Your task to perform on an android device: toggle show notifications on the lock screen Image 0: 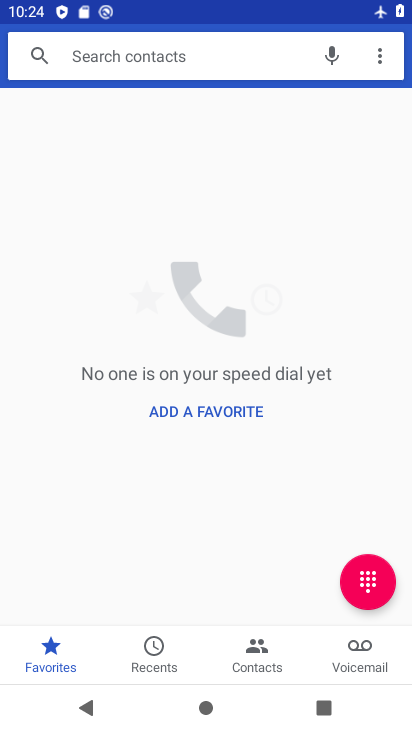
Step 0: press home button
Your task to perform on an android device: toggle show notifications on the lock screen Image 1: 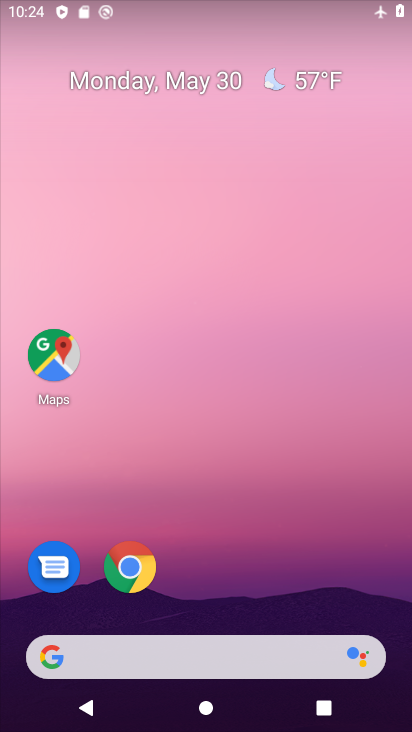
Step 1: drag from (204, 600) to (182, 218)
Your task to perform on an android device: toggle show notifications on the lock screen Image 2: 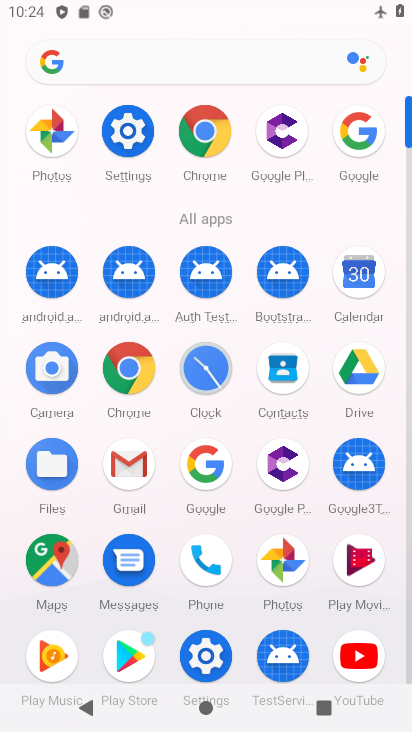
Step 2: click (125, 146)
Your task to perform on an android device: toggle show notifications on the lock screen Image 3: 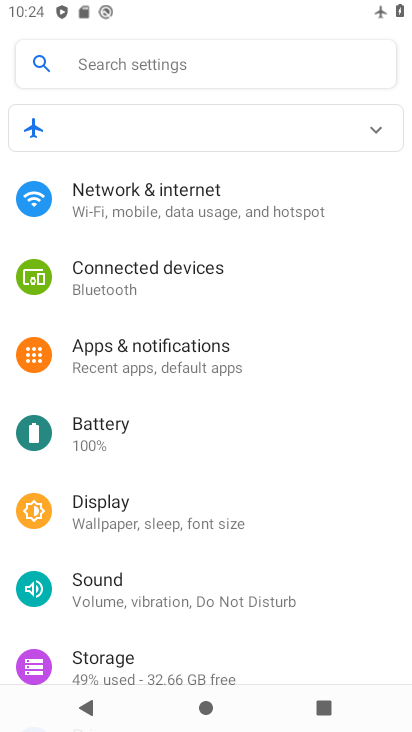
Step 3: click (152, 365)
Your task to perform on an android device: toggle show notifications on the lock screen Image 4: 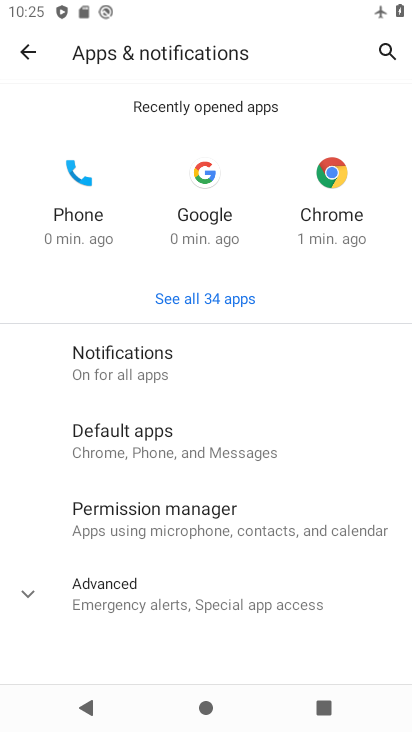
Step 4: drag from (178, 549) to (200, 434)
Your task to perform on an android device: toggle show notifications on the lock screen Image 5: 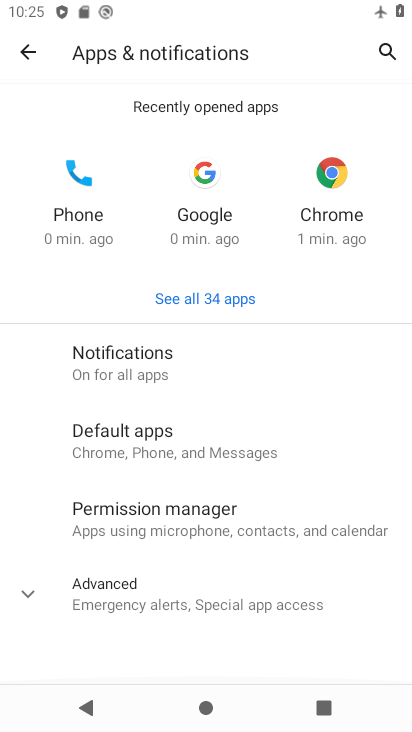
Step 5: click (168, 350)
Your task to perform on an android device: toggle show notifications on the lock screen Image 6: 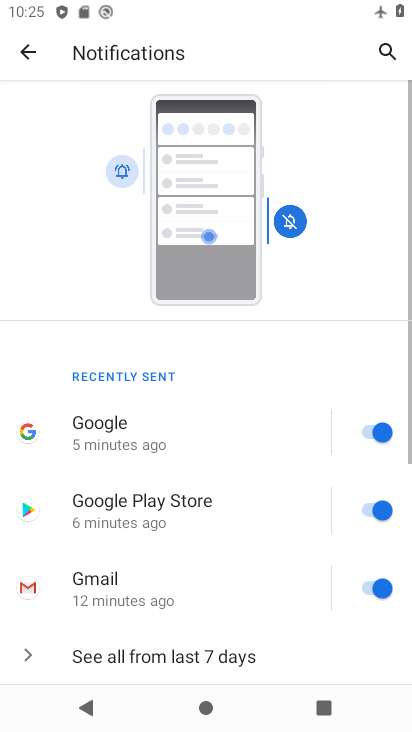
Step 6: drag from (175, 561) to (158, 213)
Your task to perform on an android device: toggle show notifications on the lock screen Image 7: 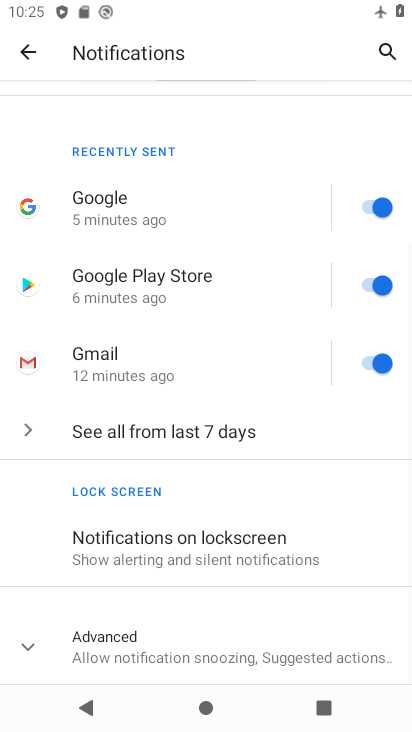
Step 7: click (156, 539)
Your task to perform on an android device: toggle show notifications on the lock screen Image 8: 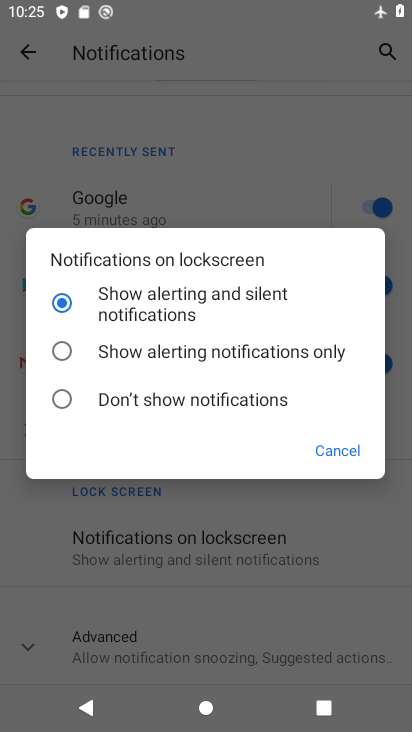
Step 8: click (124, 397)
Your task to perform on an android device: toggle show notifications on the lock screen Image 9: 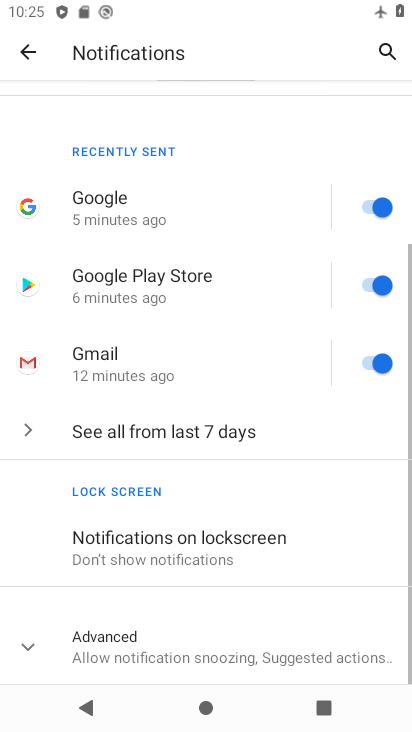
Step 9: task complete